Your task to perform on an android device: Go to Google maps Image 0: 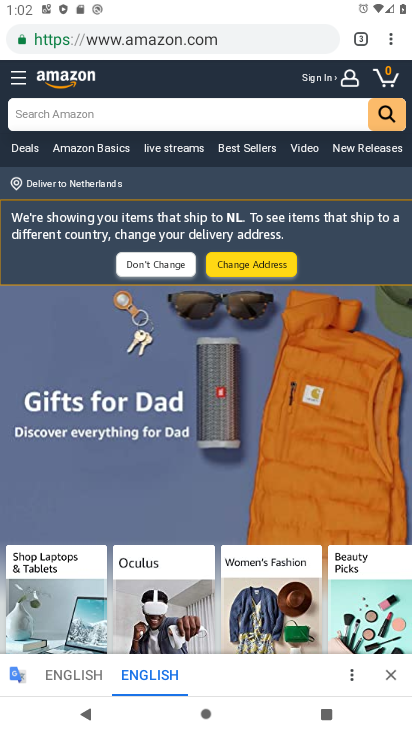
Step 0: press home button
Your task to perform on an android device: Go to Google maps Image 1: 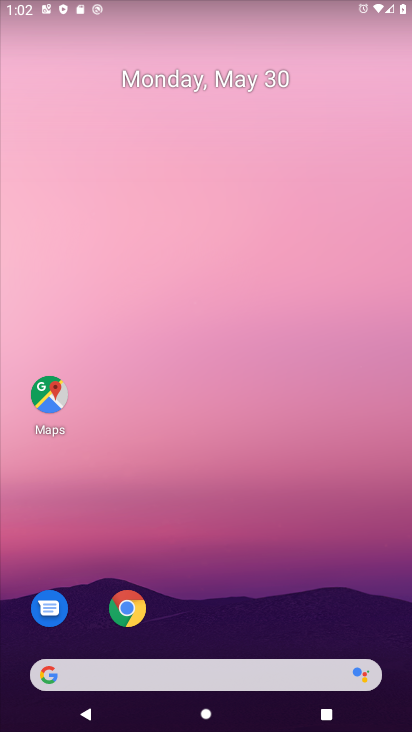
Step 1: click (43, 389)
Your task to perform on an android device: Go to Google maps Image 2: 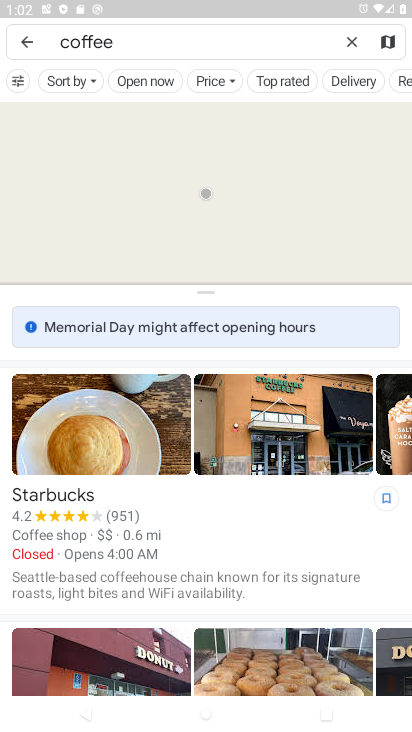
Step 2: task complete